Your task to perform on an android device: change text size in settings app Image 0: 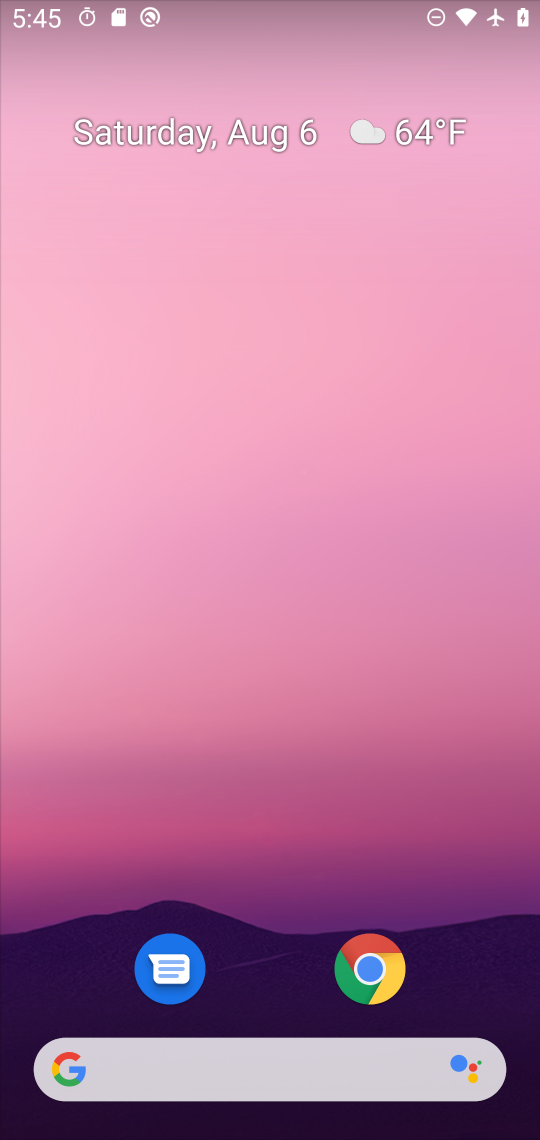
Step 0: drag from (283, 1031) to (339, 40)
Your task to perform on an android device: change text size in settings app Image 1: 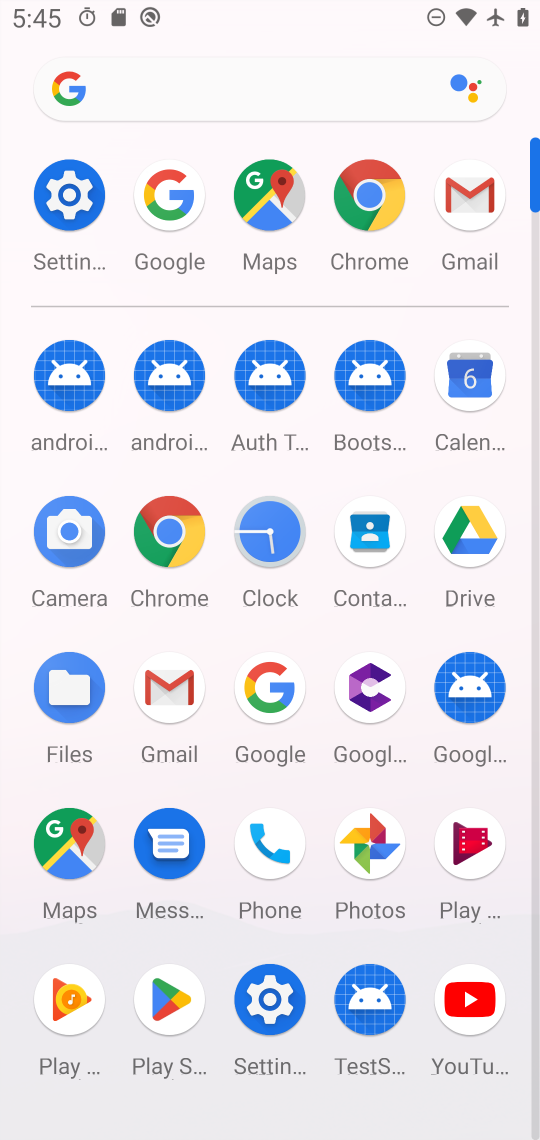
Step 1: click (64, 195)
Your task to perform on an android device: change text size in settings app Image 2: 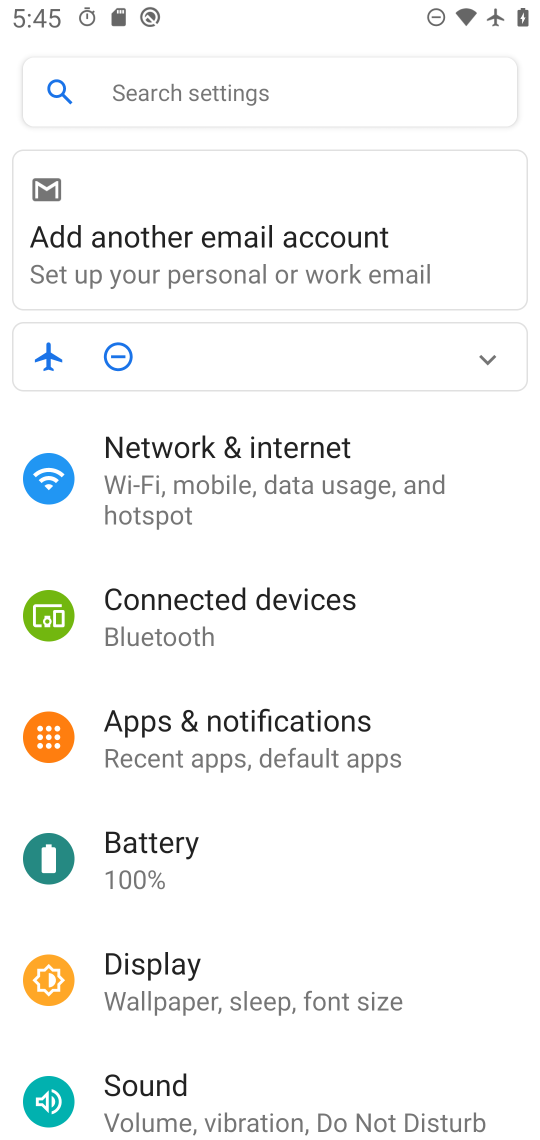
Step 2: click (178, 994)
Your task to perform on an android device: change text size in settings app Image 3: 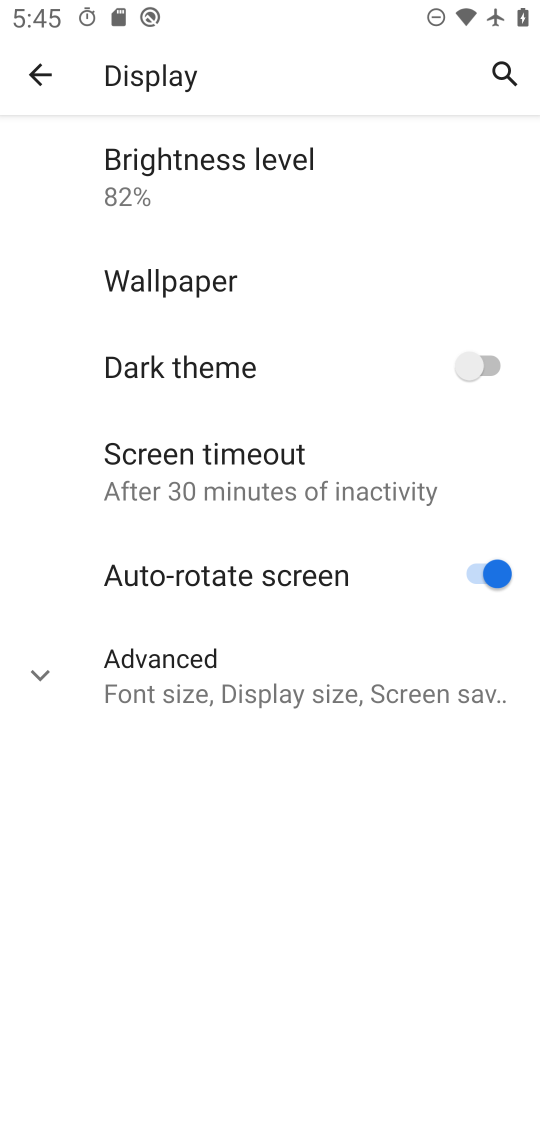
Step 3: click (163, 691)
Your task to perform on an android device: change text size in settings app Image 4: 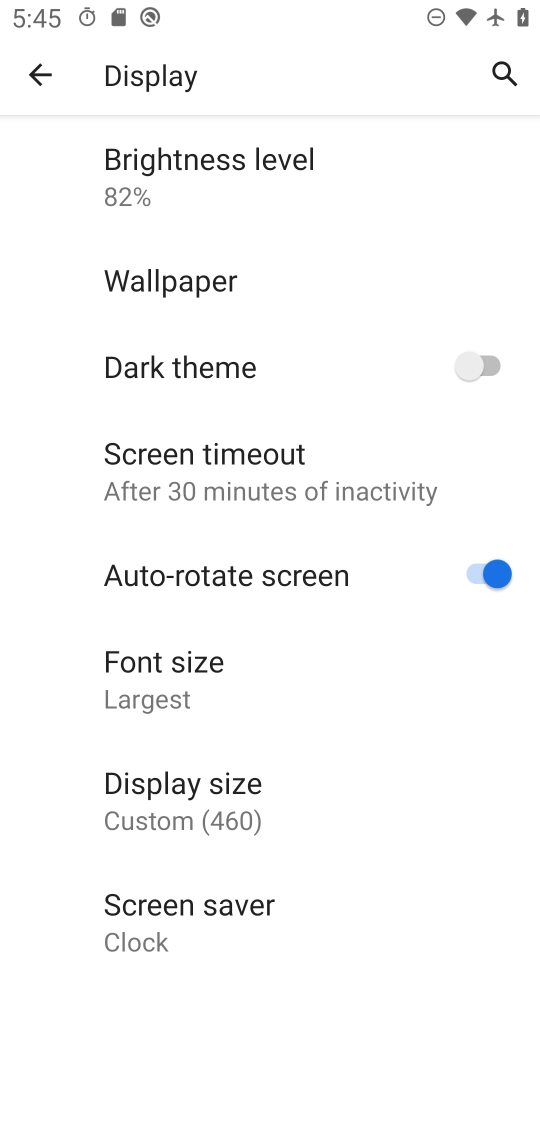
Step 4: click (161, 694)
Your task to perform on an android device: change text size in settings app Image 5: 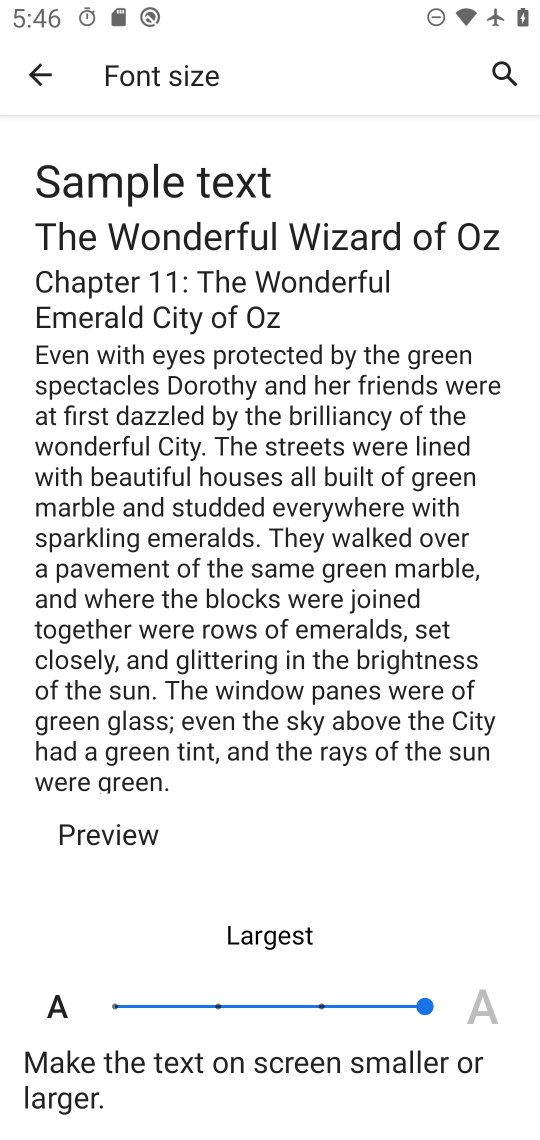
Step 5: click (315, 1012)
Your task to perform on an android device: change text size in settings app Image 6: 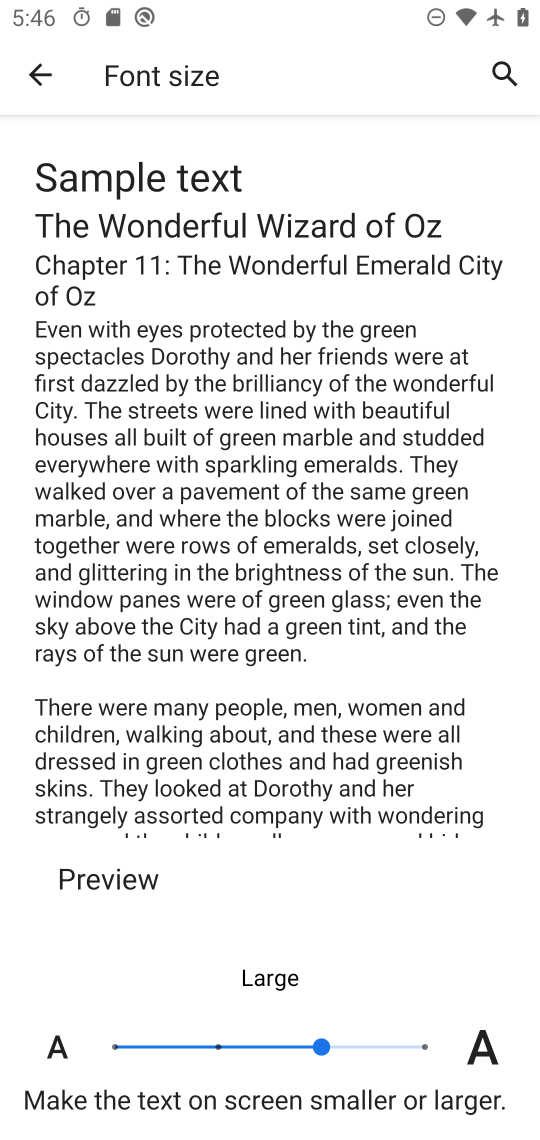
Step 6: task complete